Your task to perform on an android device: turn notification dots off Image 0: 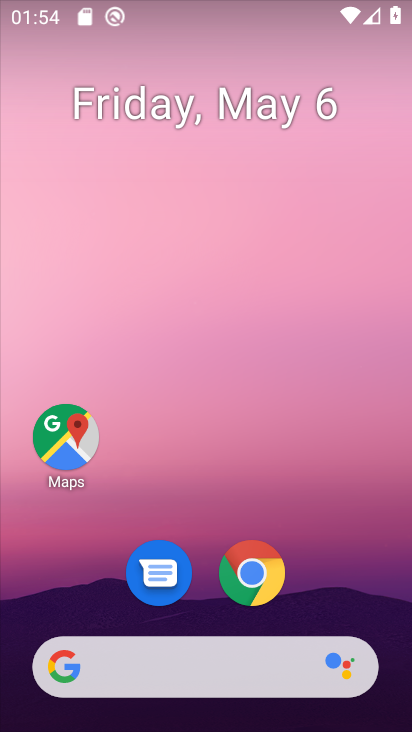
Step 0: drag from (318, 604) to (327, 326)
Your task to perform on an android device: turn notification dots off Image 1: 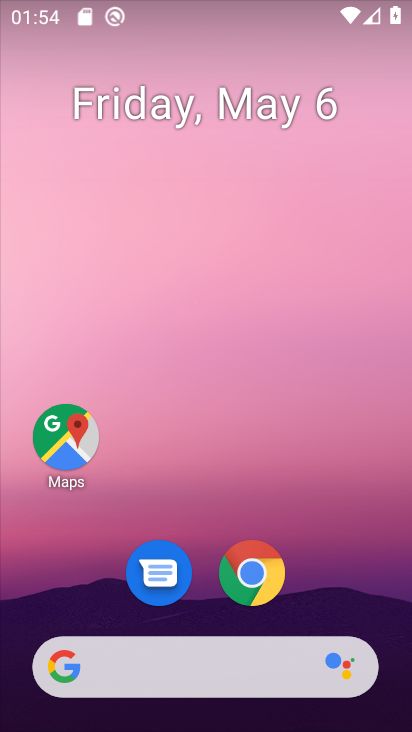
Step 1: drag from (323, 449) to (349, 266)
Your task to perform on an android device: turn notification dots off Image 2: 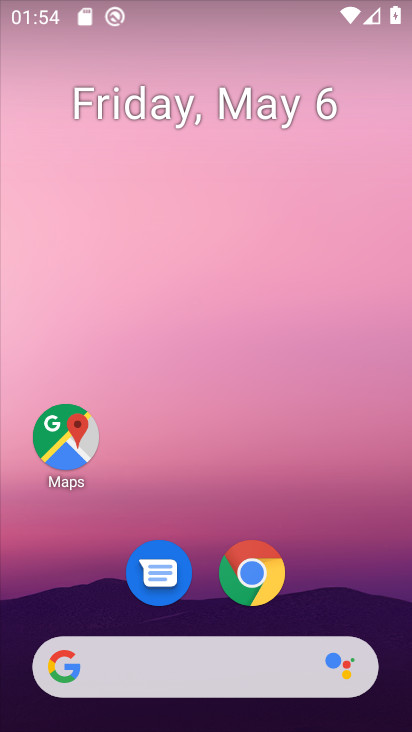
Step 2: drag from (302, 424) to (318, 167)
Your task to perform on an android device: turn notification dots off Image 3: 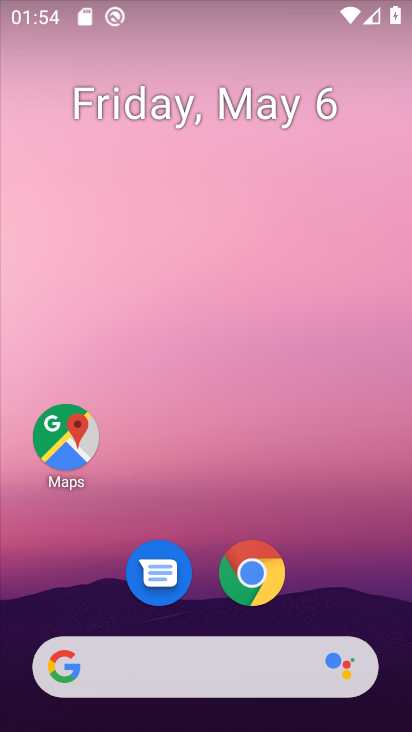
Step 3: drag from (272, 565) to (338, 194)
Your task to perform on an android device: turn notification dots off Image 4: 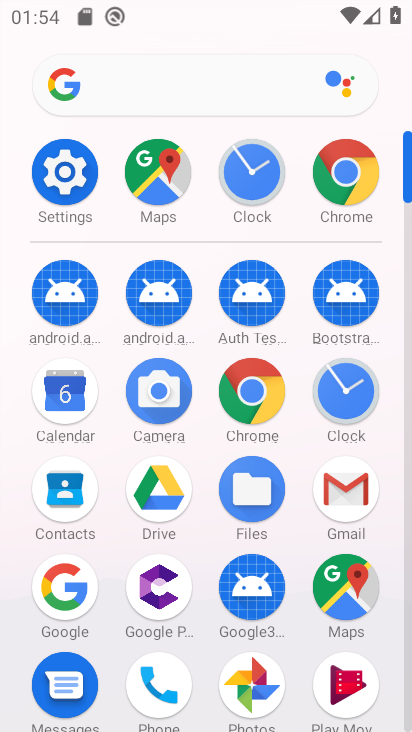
Step 4: click (77, 154)
Your task to perform on an android device: turn notification dots off Image 5: 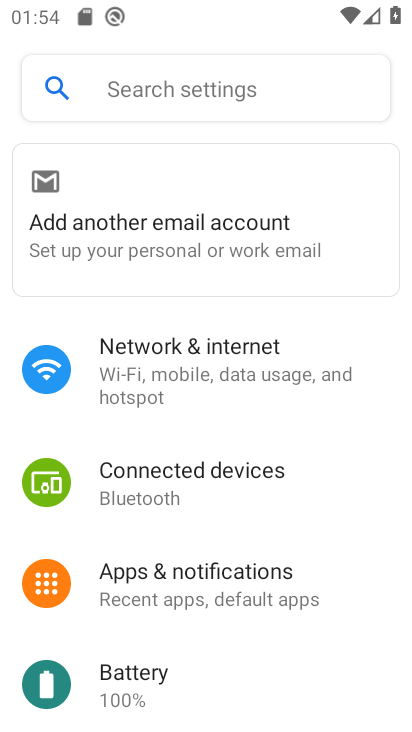
Step 5: click (165, 83)
Your task to perform on an android device: turn notification dots off Image 6: 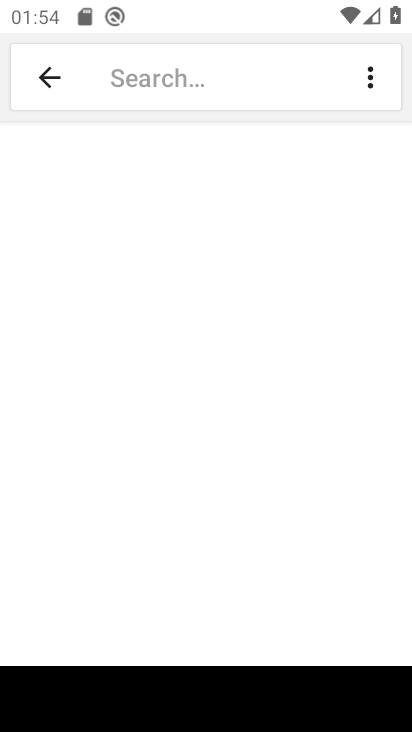
Step 6: type " notification dots off"
Your task to perform on an android device: turn notification dots off Image 7: 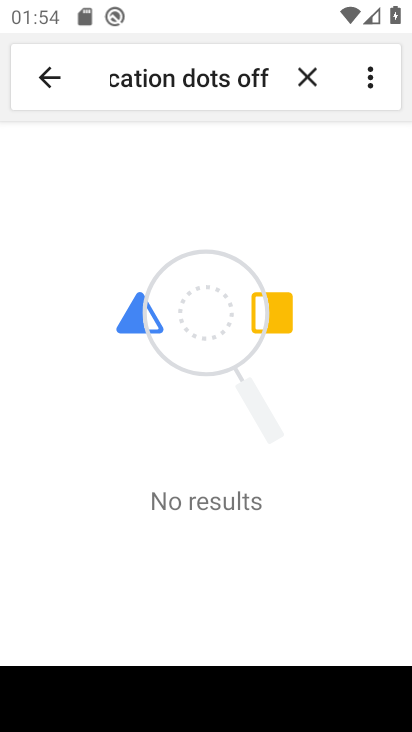
Step 7: click (312, 76)
Your task to perform on an android device: turn notification dots off Image 8: 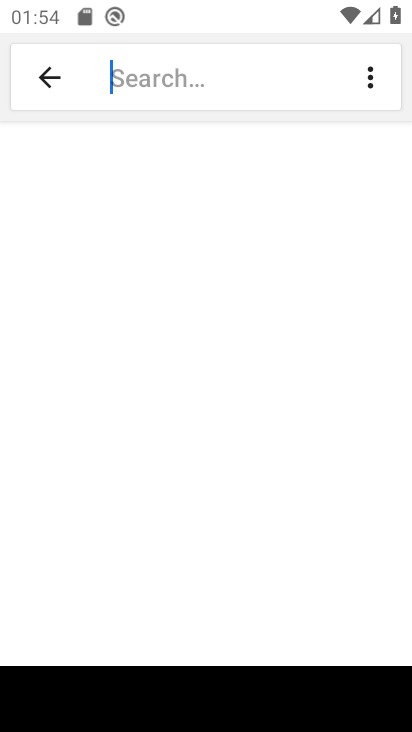
Step 8: click (263, 77)
Your task to perform on an android device: turn notification dots off Image 9: 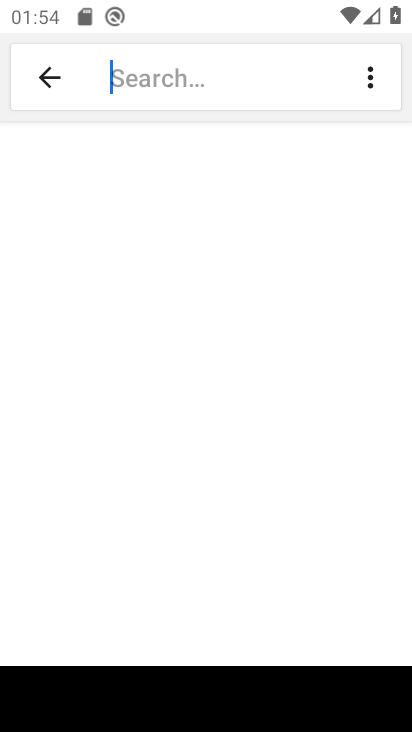
Step 9: click (137, 82)
Your task to perform on an android device: turn notification dots off Image 10: 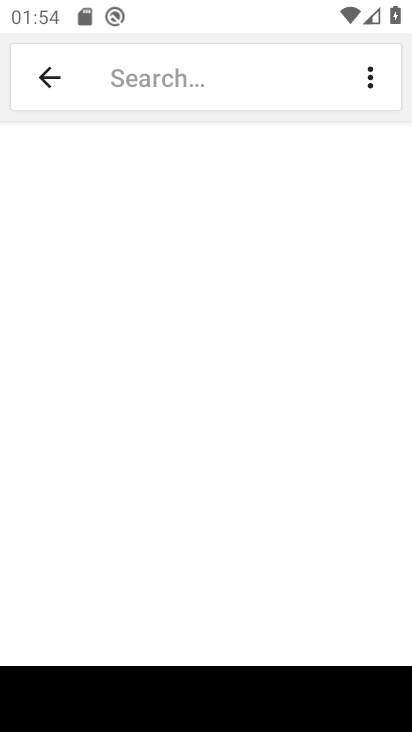
Step 10: type " notification dots off"
Your task to perform on an android device: turn notification dots off Image 11: 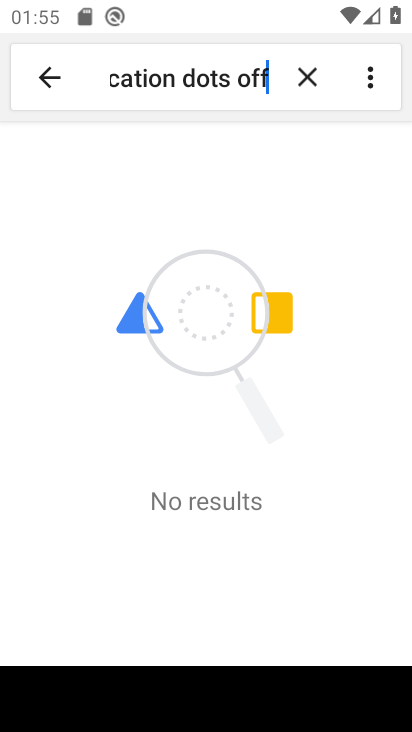
Step 11: click (274, 205)
Your task to perform on an android device: turn notification dots off Image 12: 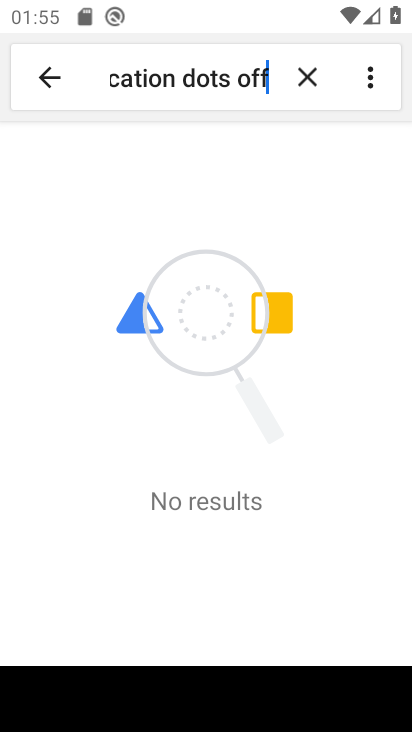
Step 12: click (272, 200)
Your task to perform on an android device: turn notification dots off Image 13: 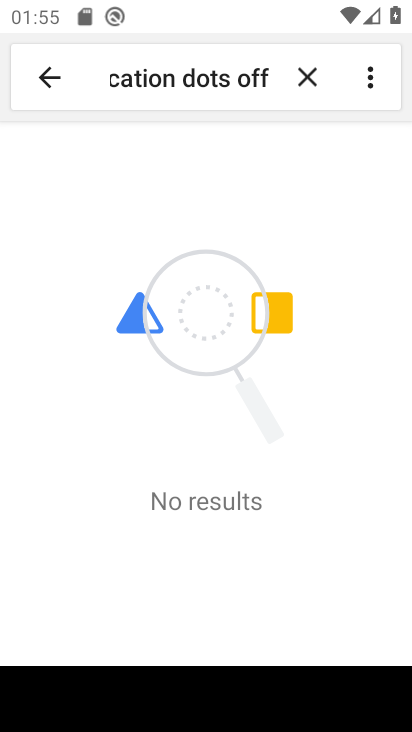
Step 13: click (272, 200)
Your task to perform on an android device: turn notification dots off Image 14: 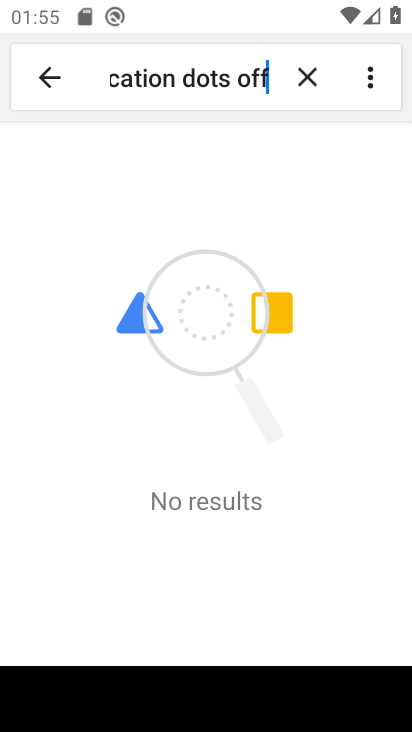
Step 14: click (308, 83)
Your task to perform on an android device: turn notification dots off Image 15: 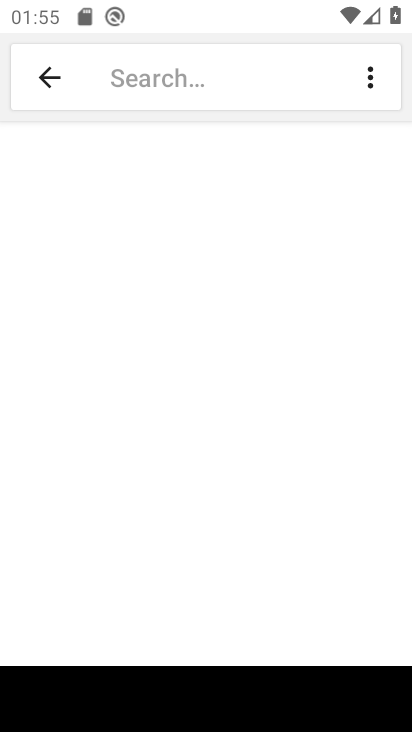
Step 15: click (238, 68)
Your task to perform on an android device: turn notification dots off Image 16: 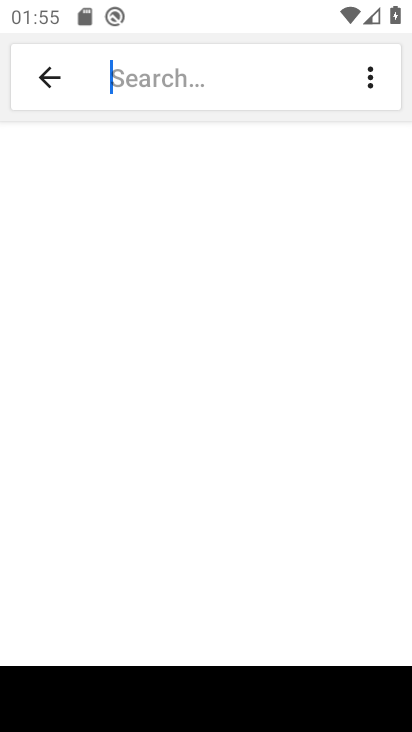
Step 16: type "notification dots "
Your task to perform on an android device: turn notification dots off Image 17: 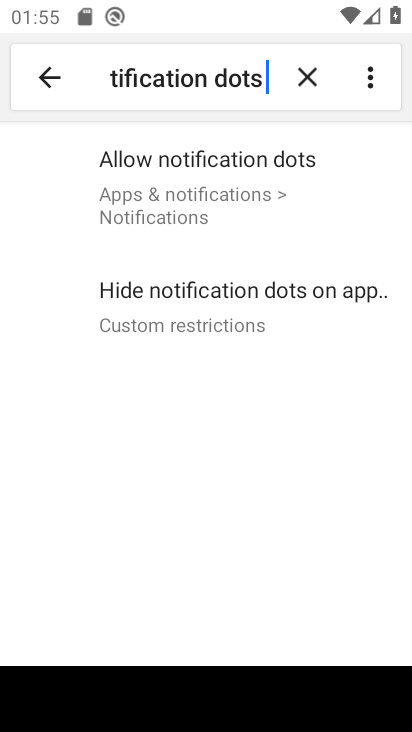
Step 17: click (244, 170)
Your task to perform on an android device: turn notification dots off Image 18: 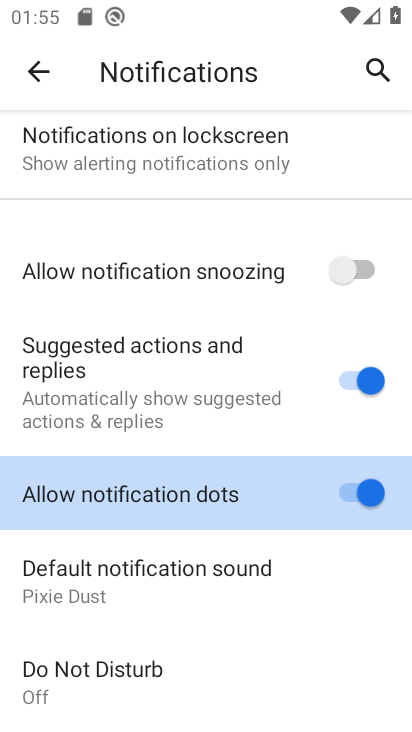
Step 18: click (351, 490)
Your task to perform on an android device: turn notification dots off Image 19: 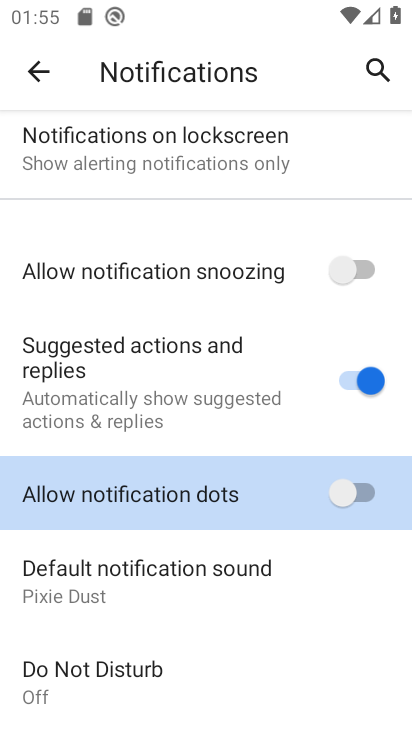
Step 19: task complete